Your task to perform on an android device: star an email in the gmail app Image 0: 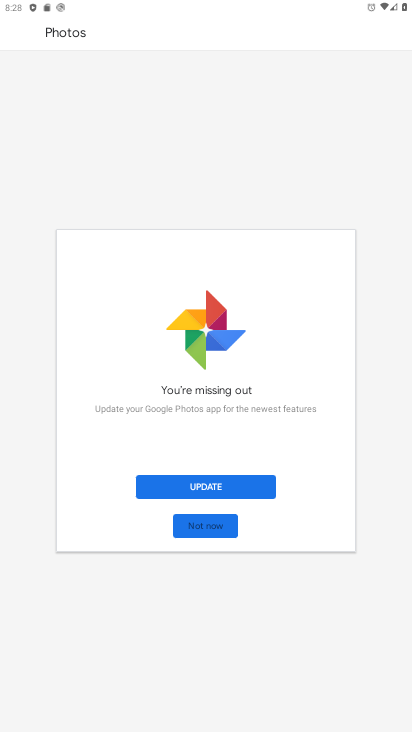
Step 0: press home button
Your task to perform on an android device: star an email in the gmail app Image 1: 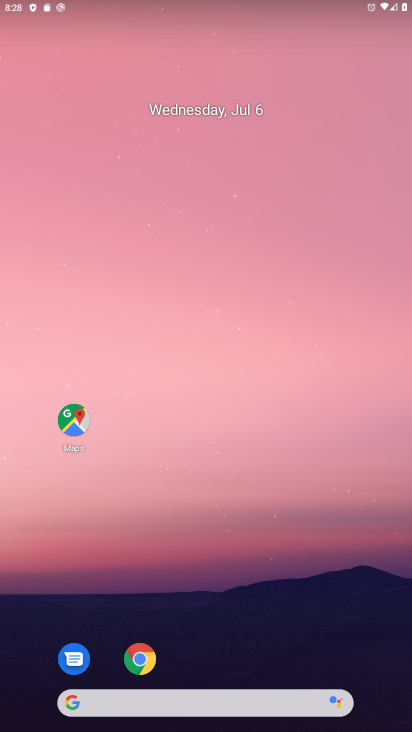
Step 1: drag from (219, 699) to (367, 88)
Your task to perform on an android device: star an email in the gmail app Image 2: 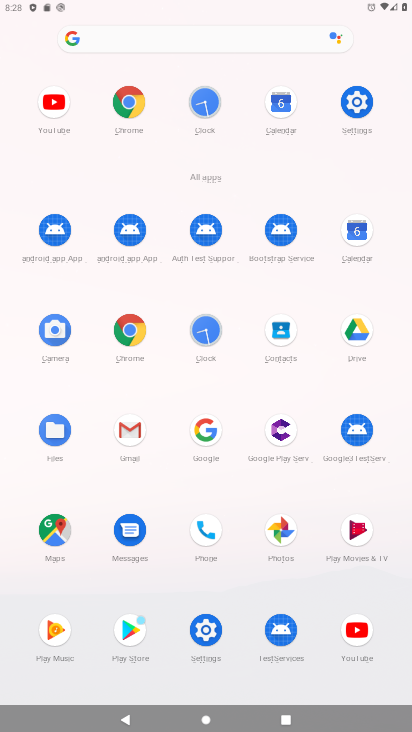
Step 2: click (138, 431)
Your task to perform on an android device: star an email in the gmail app Image 3: 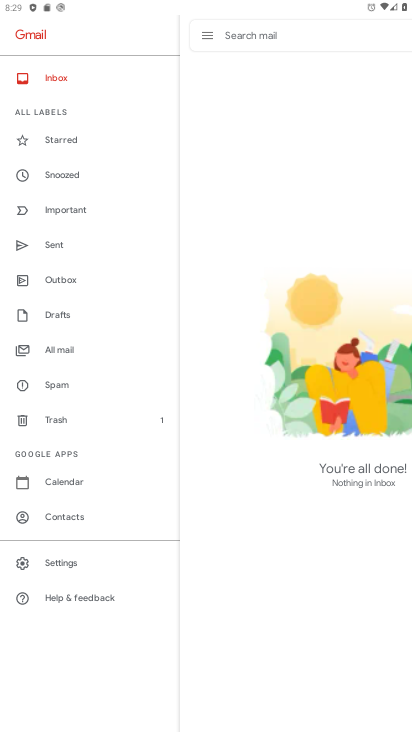
Step 3: click (75, 144)
Your task to perform on an android device: star an email in the gmail app Image 4: 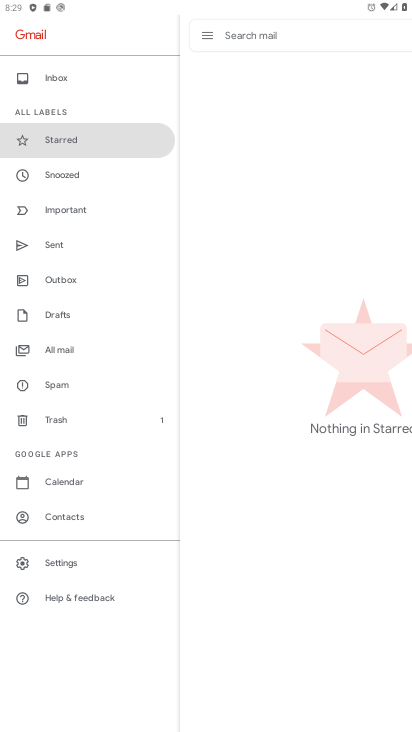
Step 4: task complete